Your task to perform on an android device: empty trash in google photos Image 0: 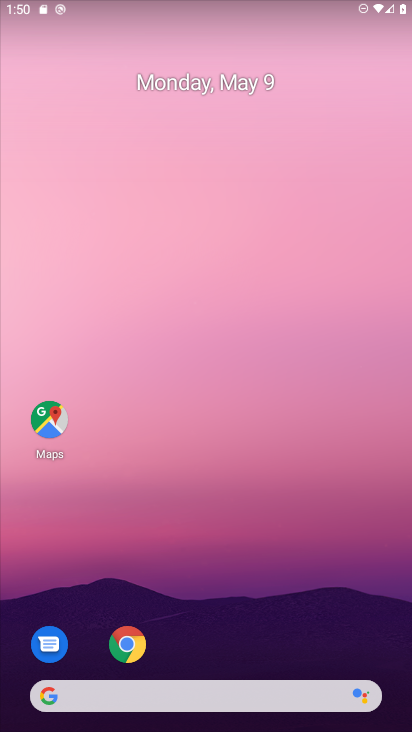
Step 0: drag from (317, 618) to (335, 151)
Your task to perform on an android device: empty trash in google photos Image 1: 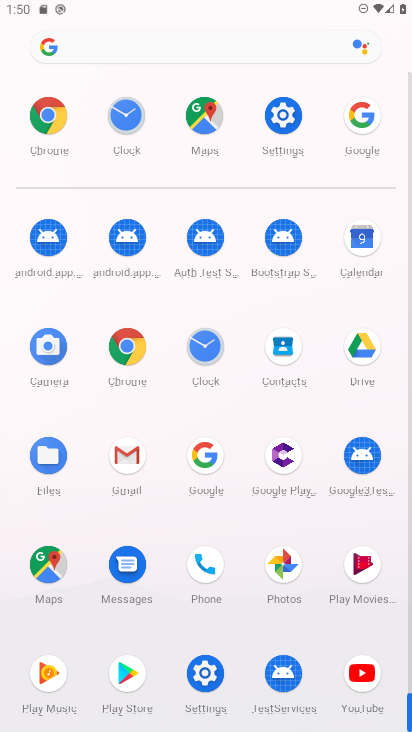
Step 1: click (279, 584)
Your task to perform on an android device: empty trash in google photos Image 2: 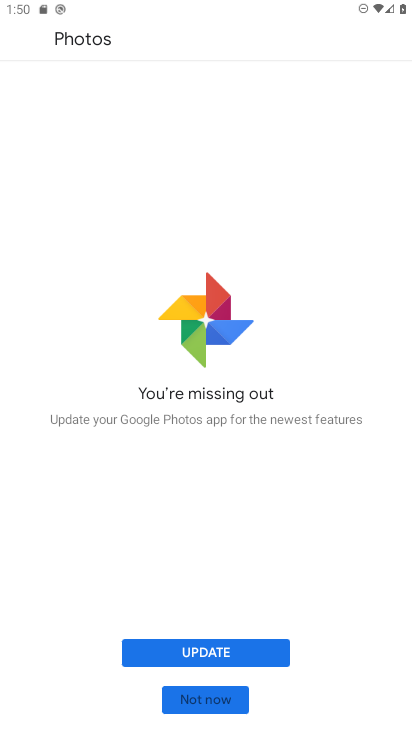
Step 2: click (218, 700)
Your task to perform on an android device: empty trash in google photos Image 3: 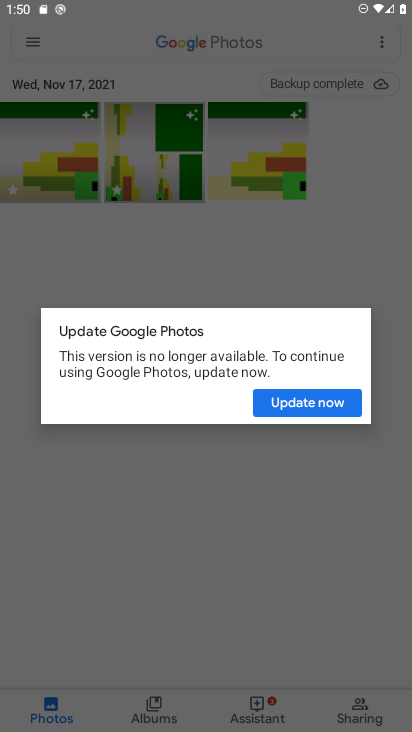
Step 3: click (319, 410)
Your task to perform on an android device: empty trash in google photos Image 4: 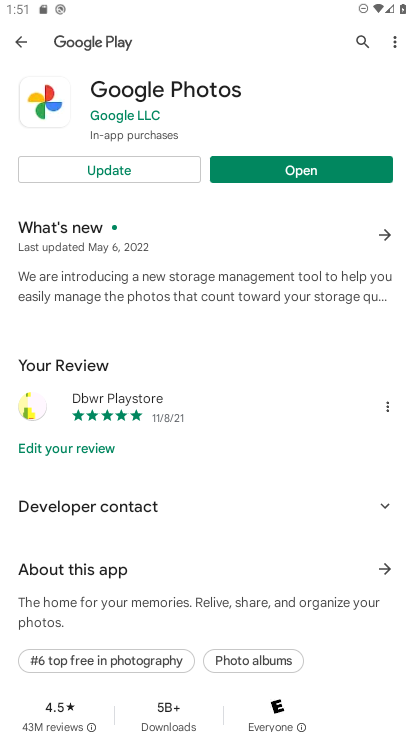
Step 4: click (283, 170)
Your task to perform on an android device: empty trash in google photos Image 5: 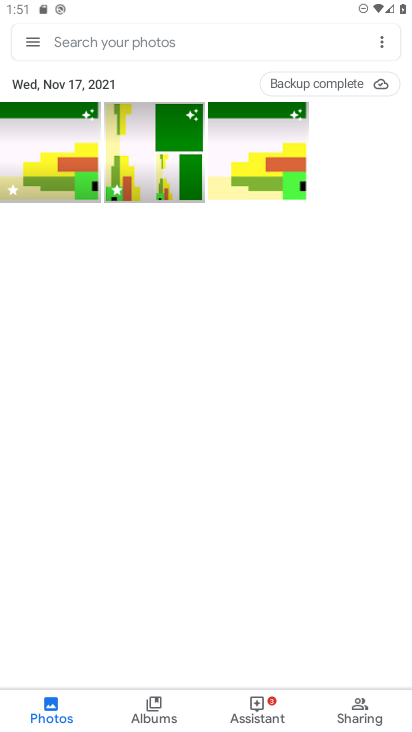
Step 5: click (26, 49)
Your task to perform on an android device: empty trash in google photos Image 6: 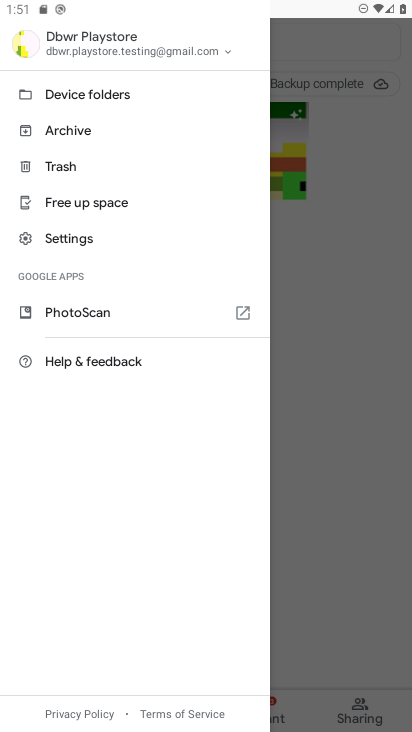
Step 6: click (81, 171)
Your task to perform on an android device: empty trash in google photos Image 7: 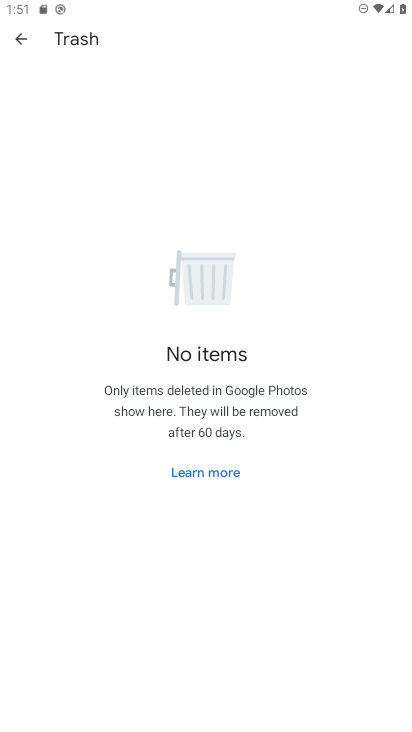
Step 7: task complete